Your task to perform on an android device: Check the news Image 0: 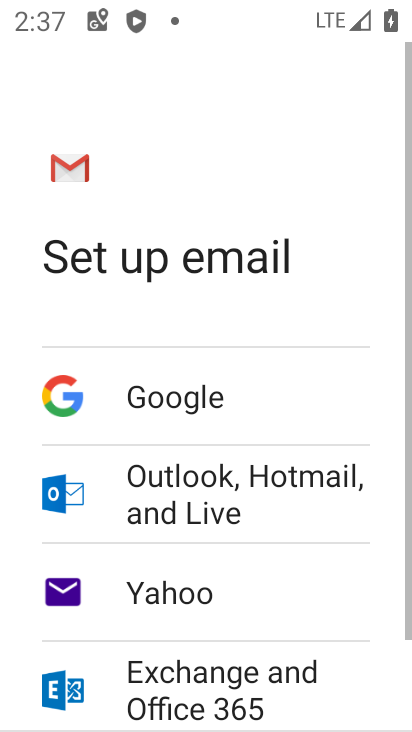
Step 0: press back button
Your task to perform on an android device: Check the news Image 1: 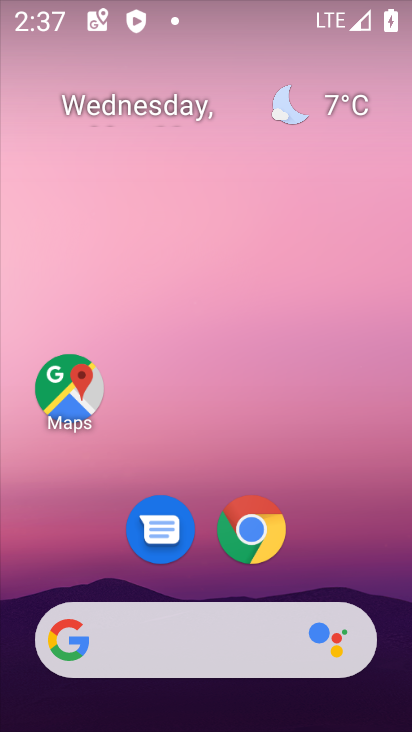
Step 1: click (205, 644)
Your task to perform on an android device: Check the news Image 2: 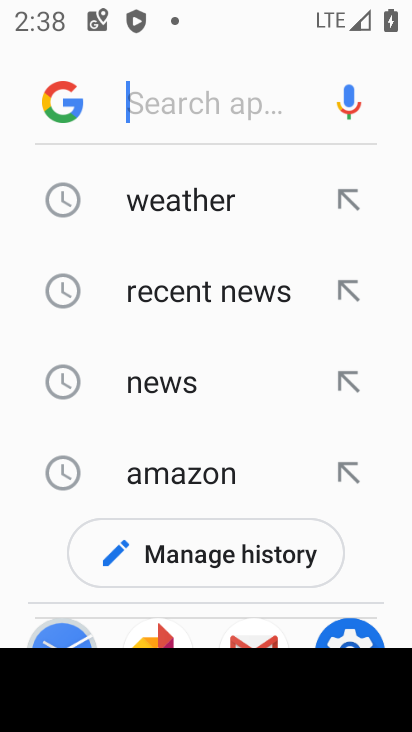
Step 2: click (221, 380)
Your task to perform on an android device: Check the news Image 3: 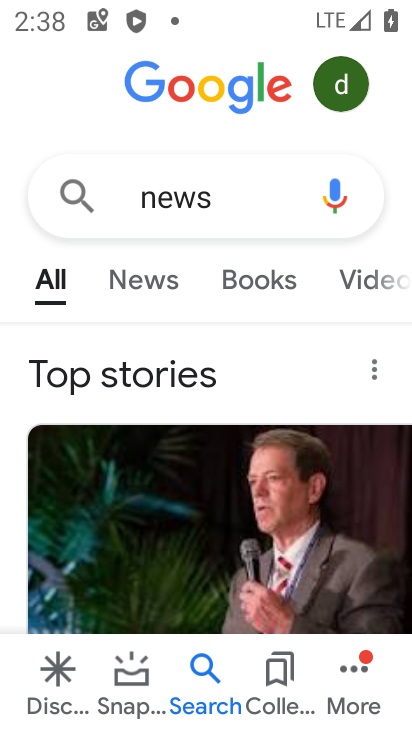
Step 3: task complete